Your task to perform on an android device: turn off data saver in the chrome app Image 0: 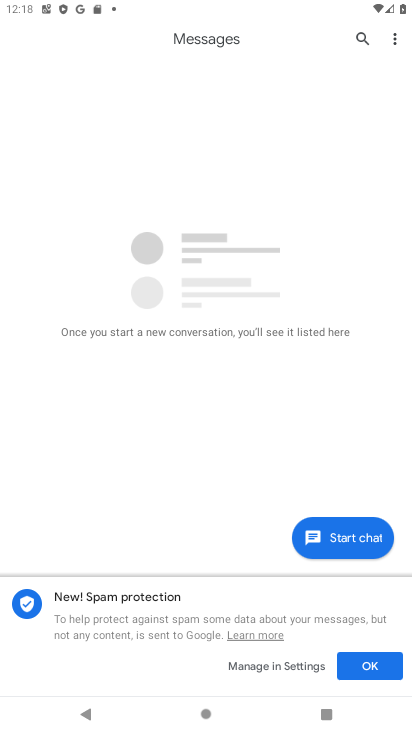
Step 0: press home button
Your task to perform on an android device: turn off data saver in the chrome app Image 1: 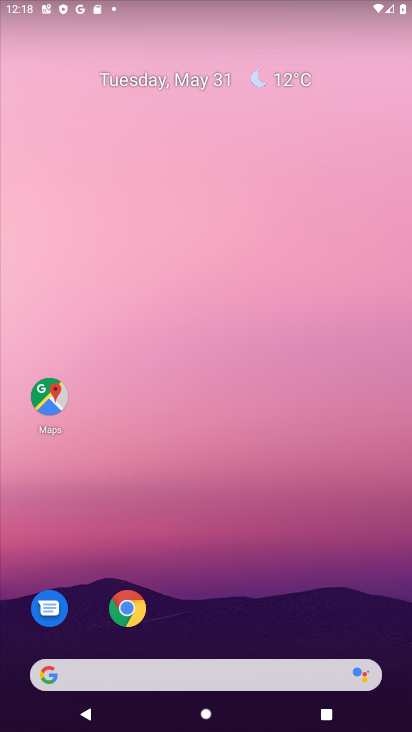
Step 1: drag from (192, 621) to (271, 23)
Your task to perform on an android device: turn off data saver in the chrome app Image 2: 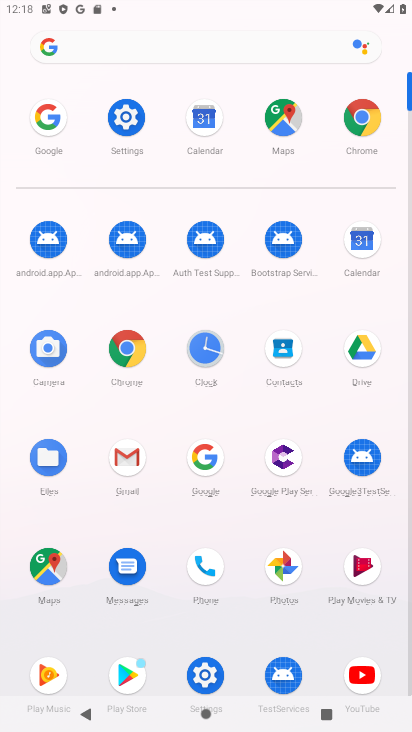
Step 2: click (128, 350)
Your task to perform on an android device: turn off data saver in the chrome app Image 3: 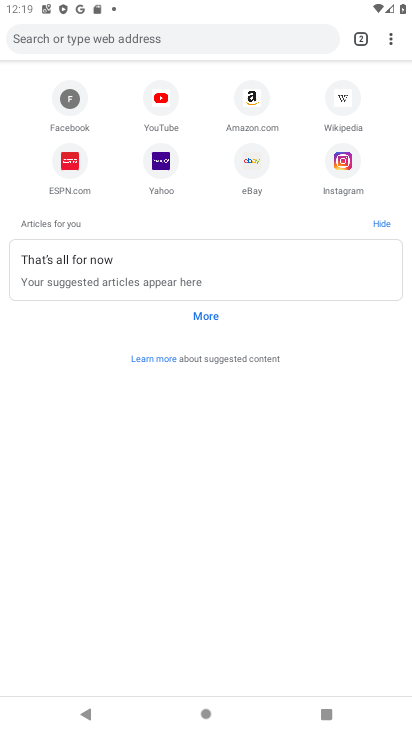
Step 3: click (385, 39)
Your task to perform on an android device: turn off data saver in the chrome app Image 4: 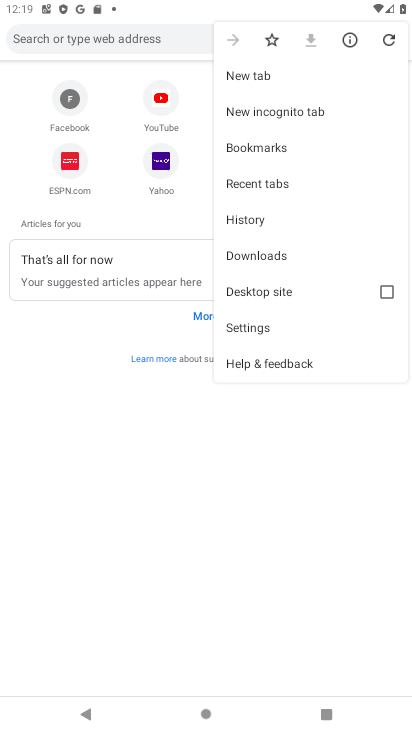
Step 4: click (263, 323)
Your task to perform on an android device: turn off data saver in the chrome app Image 5: 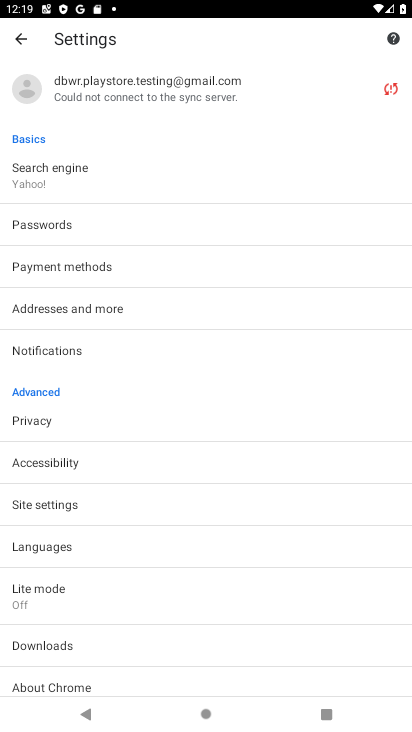
Step 5: click (103, 587)
Your task to perform on an android device: turn off data saver in the chrome app Image 6: 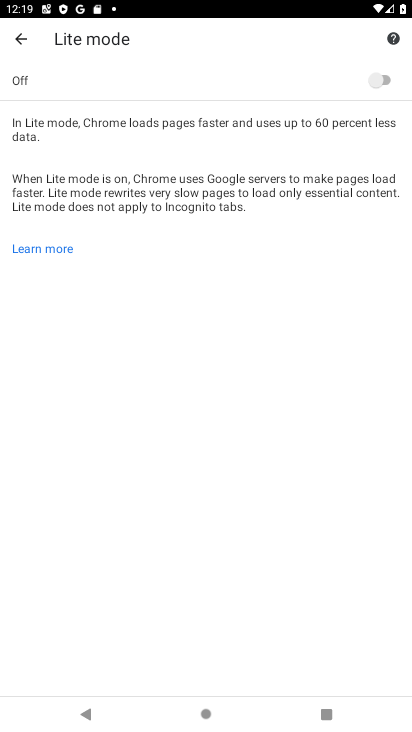
Step 6: task complete